Your task to perform on an android device: toggle show notifications on the lock screen Image 0: 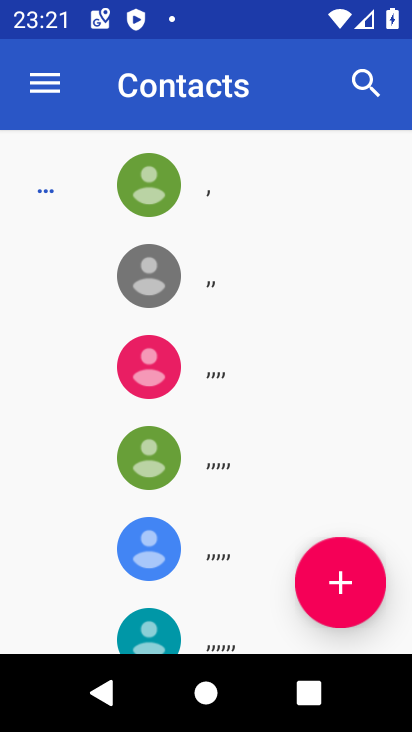
Step 0: press home button
Your task to perform on an android device: toggle show notifications on the lock screen Image 1: 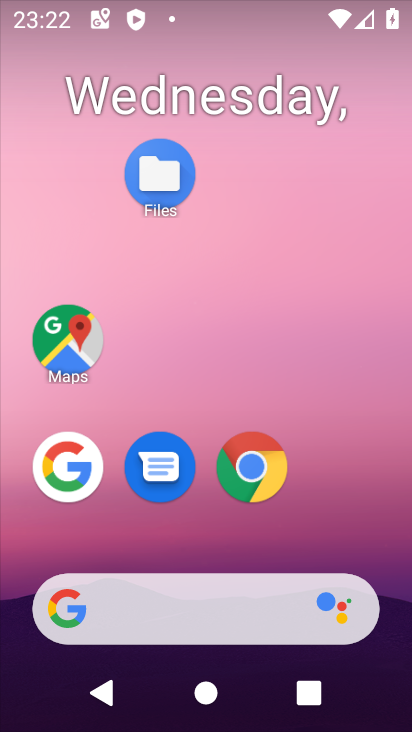
Step 1: drag from (200, 544) to (132, 36)
Your task to perform on an android device: toggle show notifications on the lock screen Image 2: 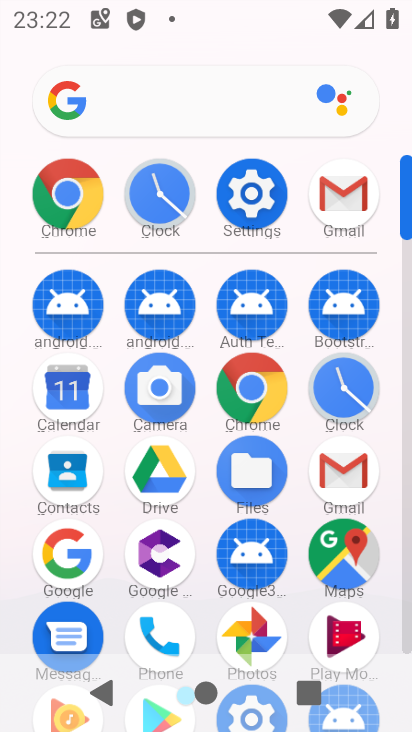
Step 2: click (262, 167)
Your task to perform on an android device: toggle show notifications on the lock screen Image 3: 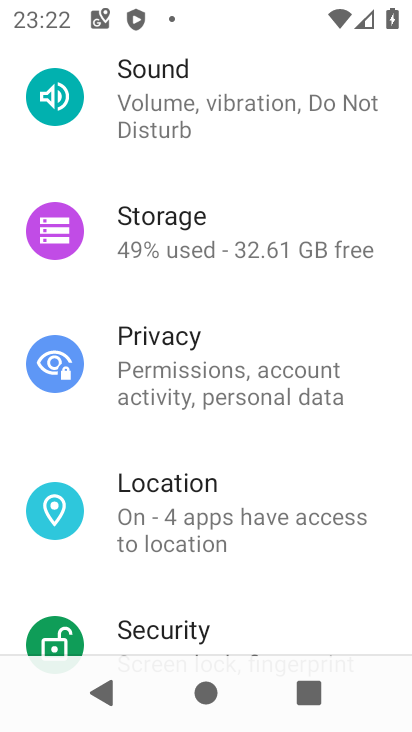
Step 3: drag from (262, 167) to (215, 553)
Your task to perform on an android device: toggle show notifications on the lock screen Image 4: 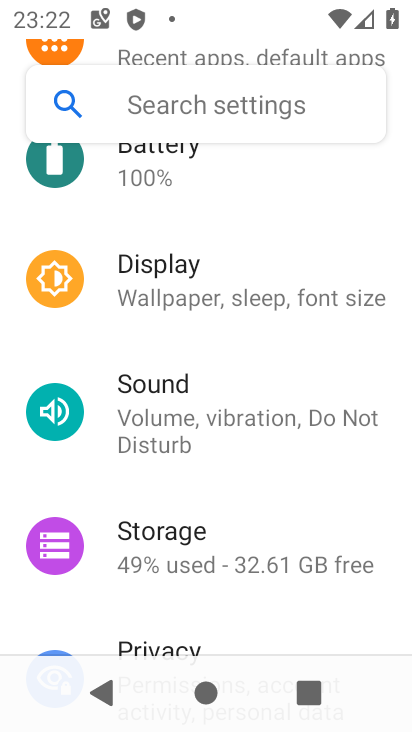
Step 4: drag from (218, 210) to (212, 552)
Your task to perform on an android device: toggle show notifications on the lock screen Image 5: 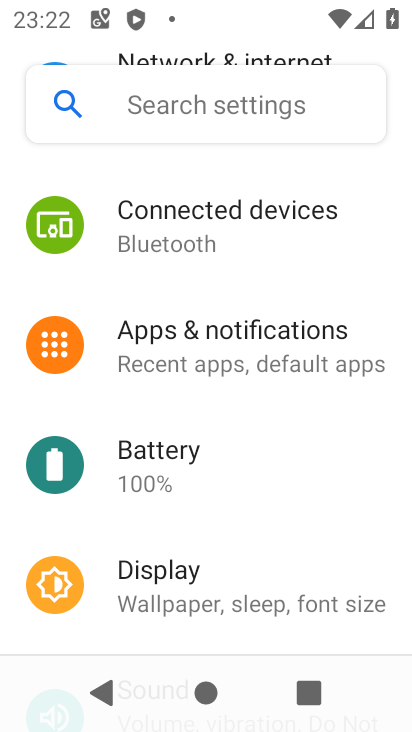
Step 5: click (194, 355)
Your task to perform on an android device: toggle show notifications on the lock screen Image 6: 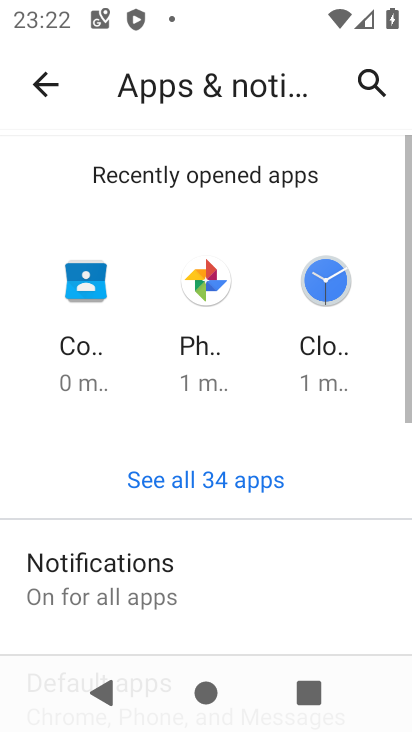
Step 6: click (145, 599)
Your task to perform on an android device: toggle show notifications on the lock screen Image 7: 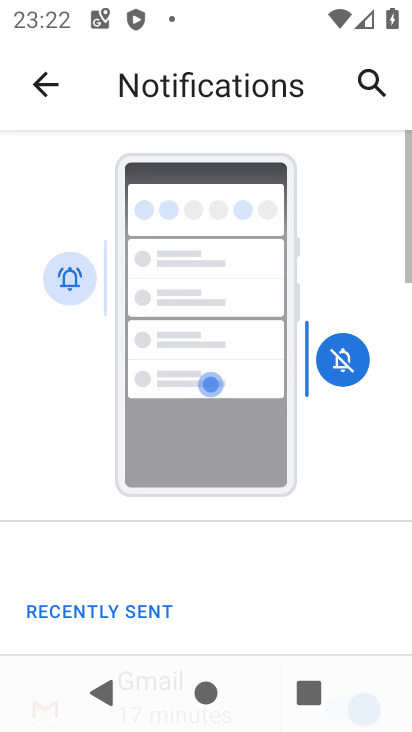
Step 7: drag from (145, 599) to (113, 103)
Your task to perform on an android device: toggle show notifications on the lock screen Image 8: 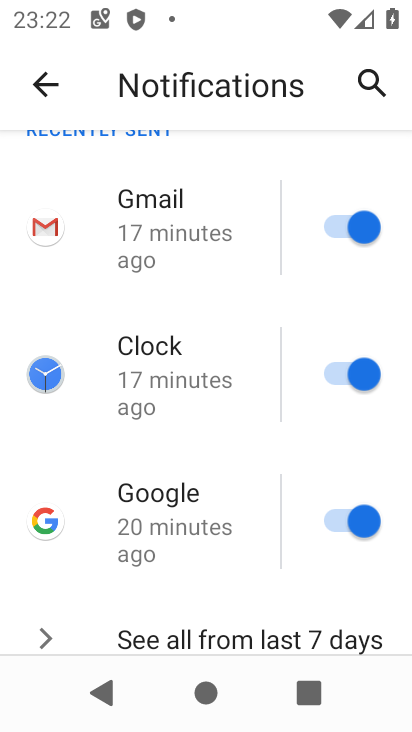
Step 8: drag from (197, 564) to (169, 146)
Your task to perform on an android device: toggle show notifications on the lock screen Image 9: 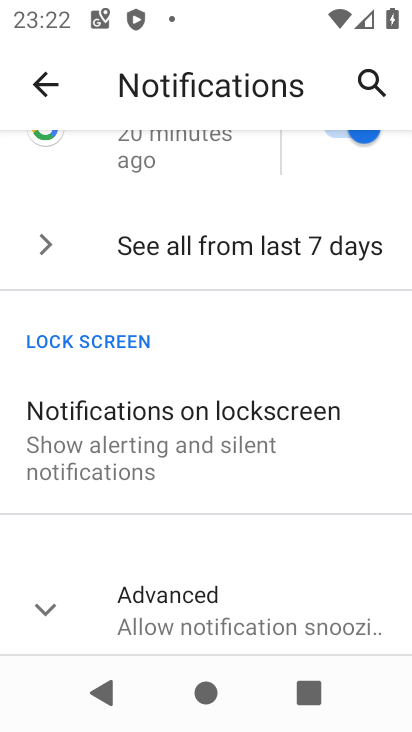
Step 9: click (198, 423)
Your task to perform on an android device: toggle show notifications on the lock screen Image 10: 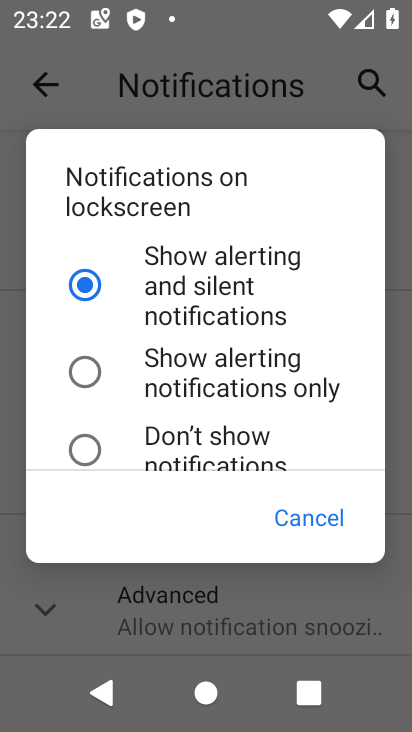
Step 10: task complete